Your task to perform on an android device: Toggle the flashlight Image 0: 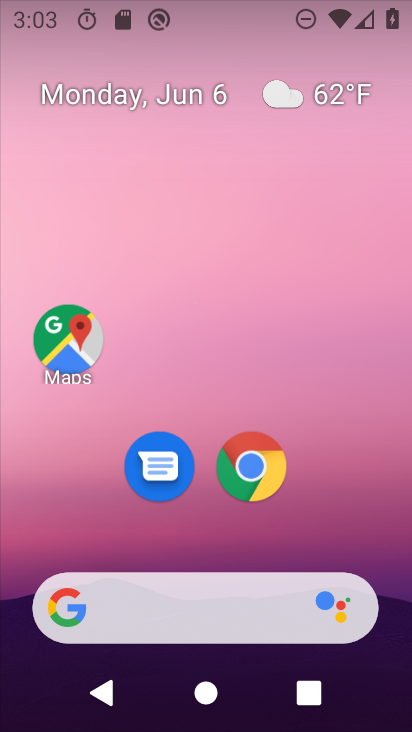
Step 0: drag from (207, 542) to (98, 52)
Your task to perform on an android device: Toggle the flashlight Image 1: 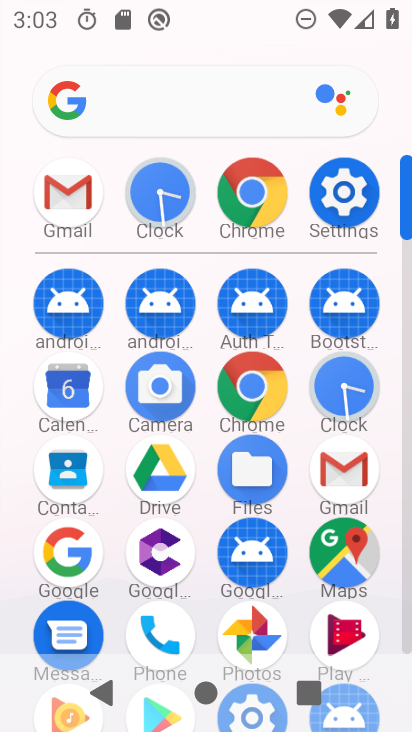
Step 1: click (360, 205)
Your task to perform on an android device: Toggle the flashlight Image 2: 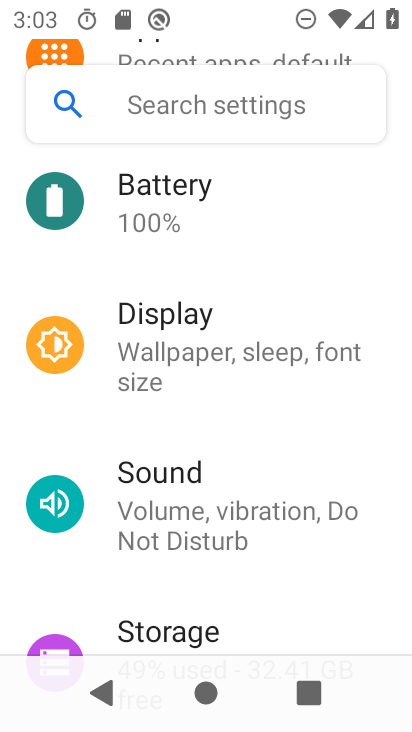
Step 2: task complete